Your task to perform on an android device: move a message to another label in the gmail app Image 0: 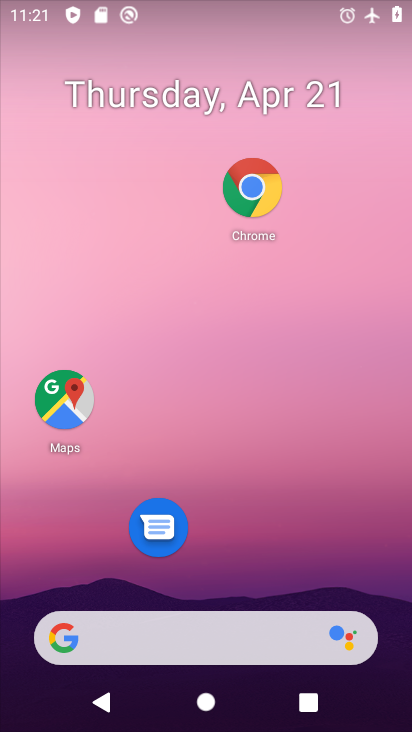
Step 0: drag from (284, 599) to (279, 321)
Your task to perform on an android device: move a message to another label in the gmail app Image 1: 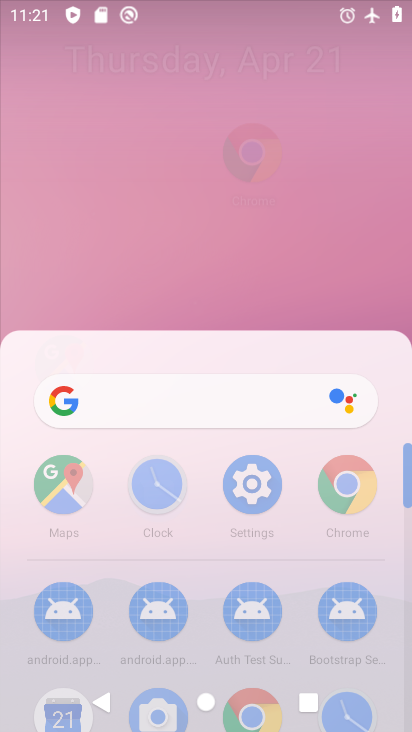
Step 1: click (299, 152)
Your task to perform on an android device: move a message to another label in the gmail app Image 2: 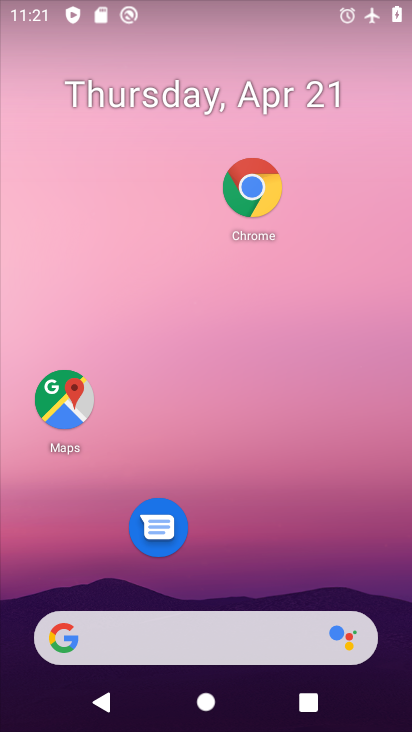
Step 2: drag from (243, 632) to (253, 308)
Your task to perform on an android device: move a message to another label in the gmail app Image 3: 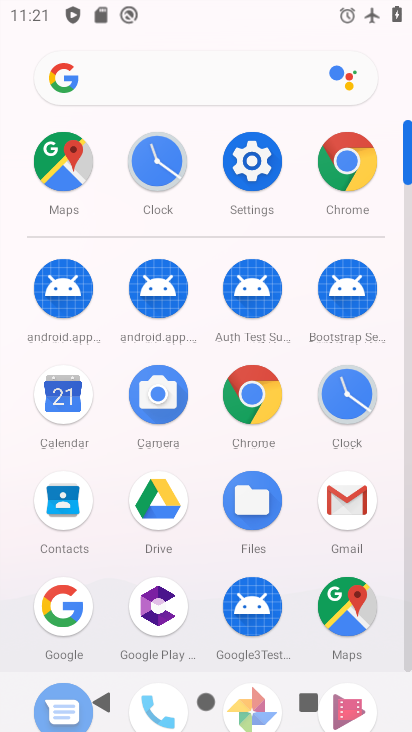
Step 3: click (363, 515)
Your task to perform on an android device: move a message to another label in the gmail app Image 4: 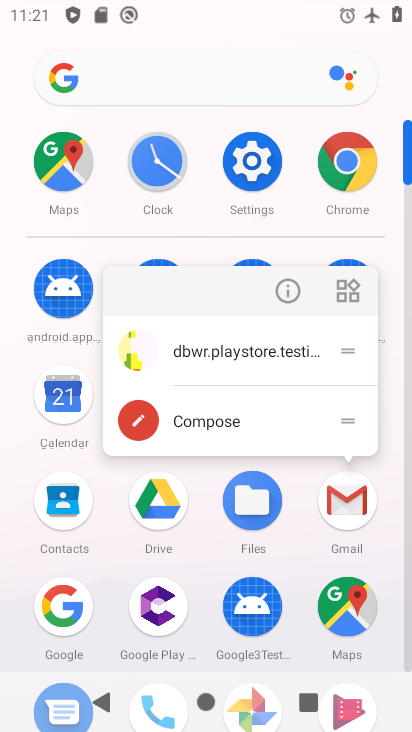
Step 4: click (350, 532)
Your task to perform on an android device: move a message to another label in the gmail app Image 5: 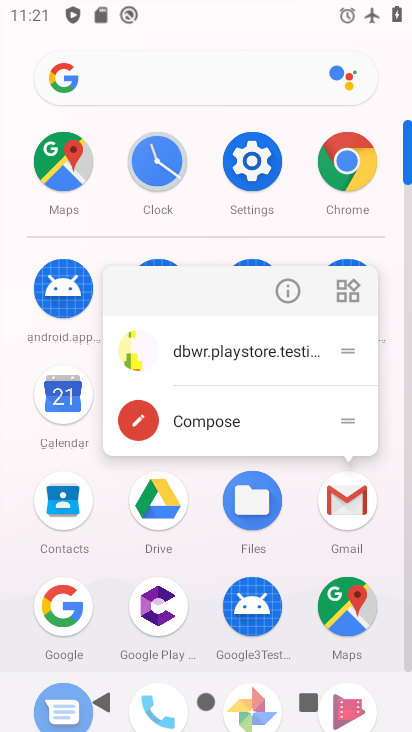
Step 5: click (350, 532)
Your task to perform on an android device: move a message to another label in the gmail app Image 6: 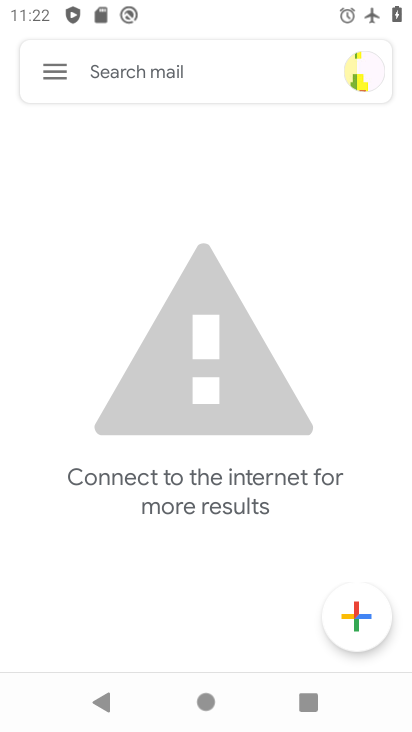
Step 6: click (51, 80)
Your task to perform on an android device: move a message to another label in the gmail app Image 7: 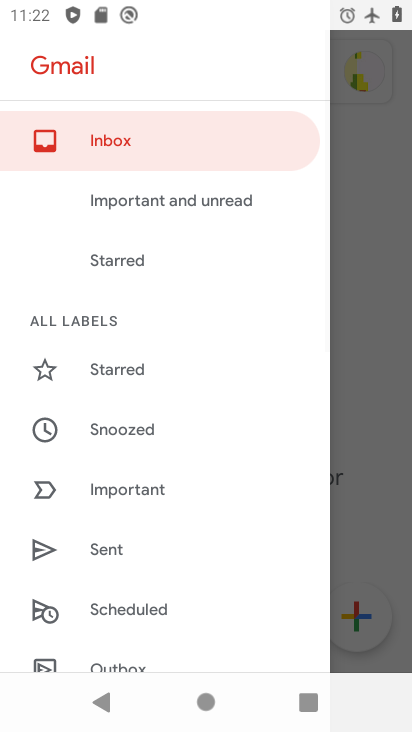
Step 7: drag from (170, 560) to (245, 88)
Your task to perform on an android device: move a message to another label in the gmail app Image 8: 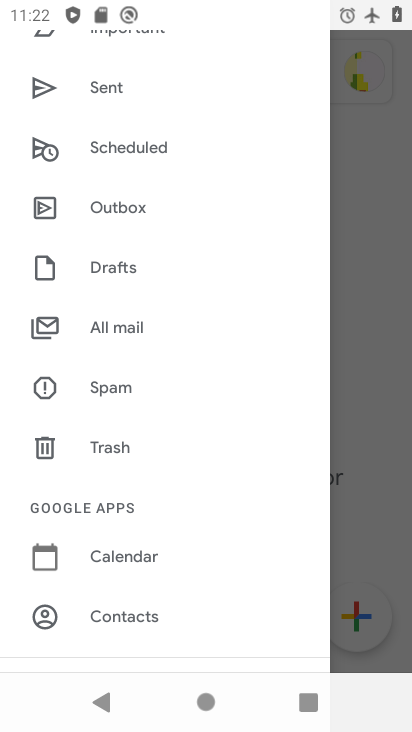
Step 8: drag from (169, 486) to (168, 122)
Your task to perform on an android device: move a message to another label in the gmail app Image 9: 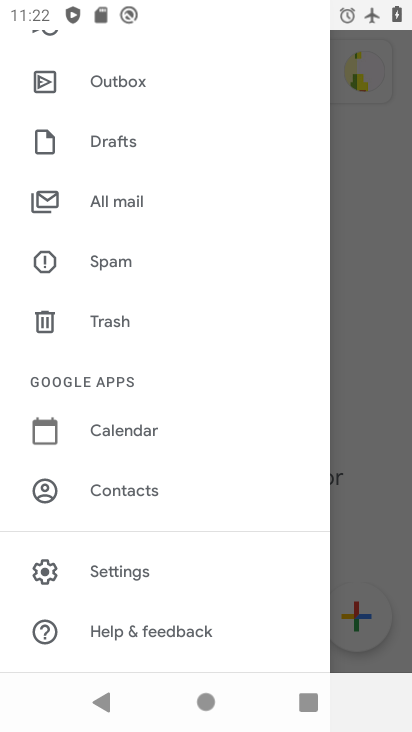
Step 9: click (160, 208)
Your task to perform on an android device: move a message to another label in the gmail app Image 10: 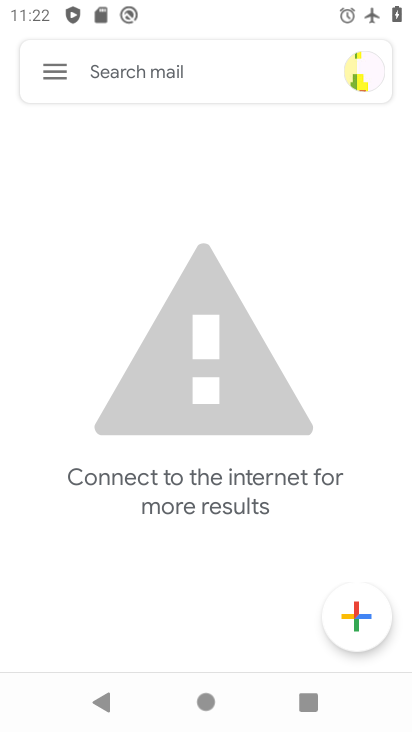
Step 10: task complete